Your task to perform on an android device: move an email to a new category in the gmail app Image 0: 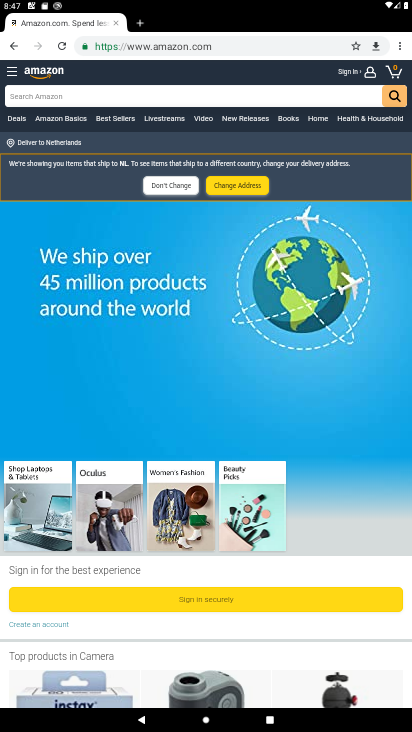
Step 0: press home button
Your task to perform on an android device: move an email to a new category in the gmail app Image 1: 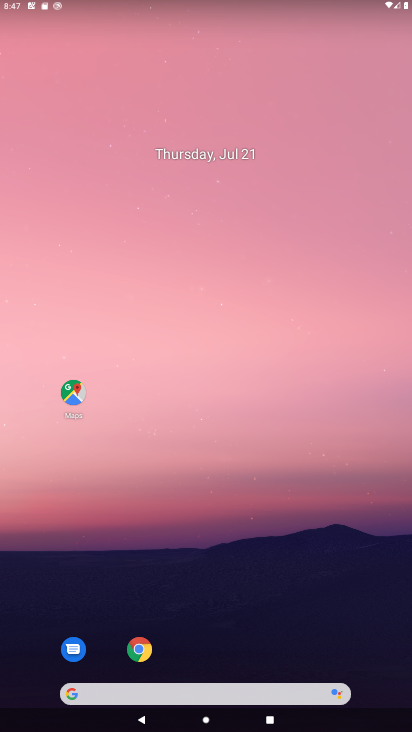
Step 1: drag from (208, 651) to (272, 124)
Your task to perform on an android device: move an email to a new category in the gmail app Image 2: 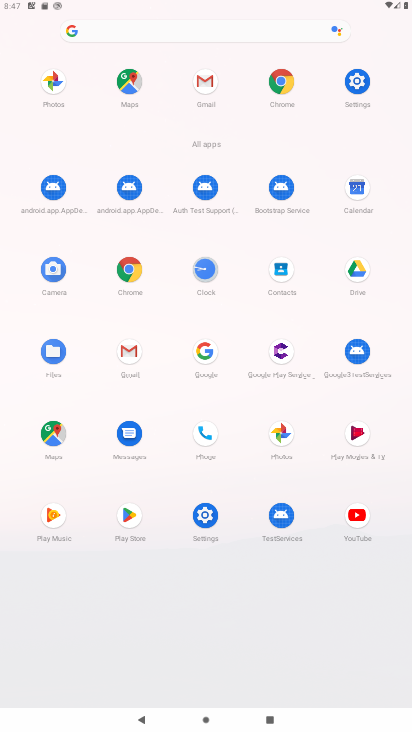
Step 2: click (134, 353)
Your task to perform on an android device: move an email to a new category in the gmail app Image 3: 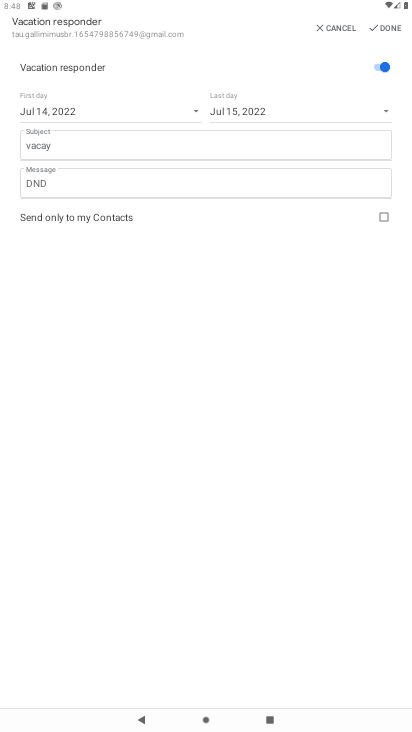
Step 3: task complete